Your task to perform on an android device: turn off smart reply in the gmail app Image 0: 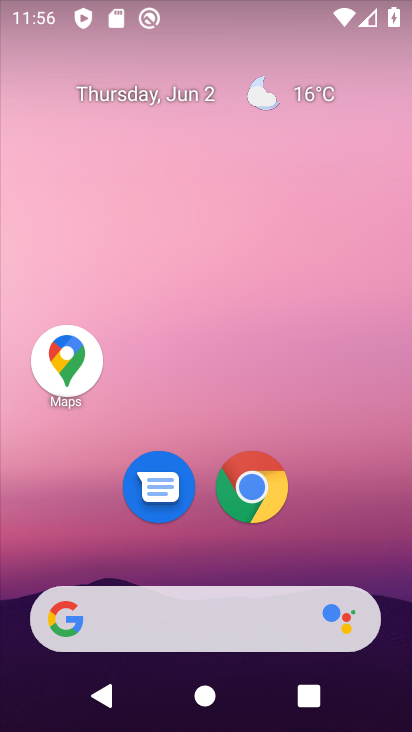
Step 0: click (344, 64)
Your task to perform on an android device: turn off smart reply in the gmail app Image 1: 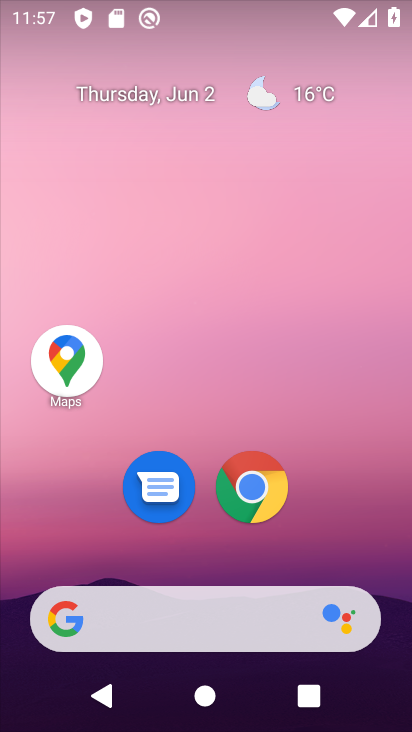
Step 1: press home button
Your task to perform on an android device: turn off smart reply in the gmail app Image 2: 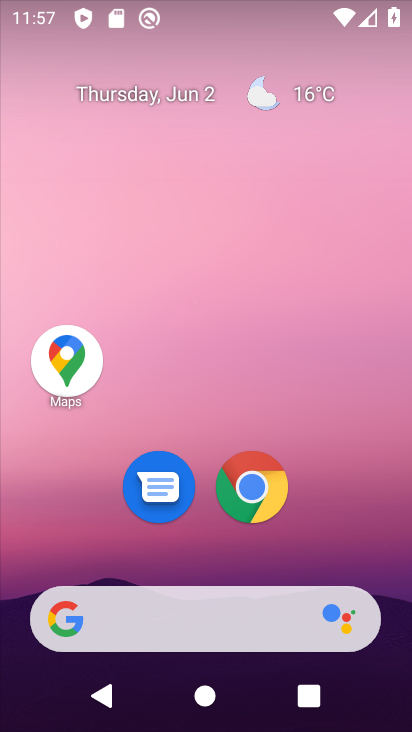
Step 2: drag from (360, 501) to (312, 32)
Your task to perform on an android device: turn off smart reply in the gmail app Image 3: 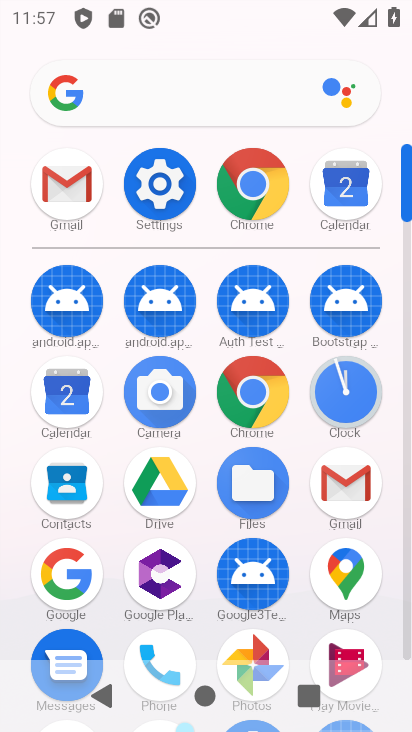
Step 3: click (69, 182)
Your task to perform on an android device: turn off smart reply in the gmail app Image 4: 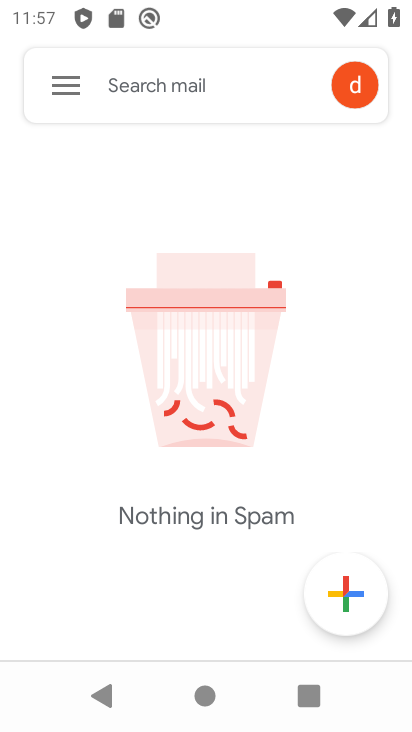
Step 4: click (63, 91)
Your task to perform on an android device: turn off smart reply in the gmail app Image 5: 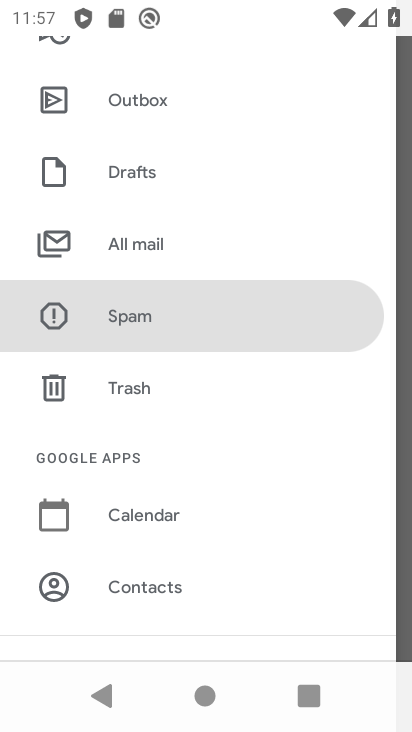
Step 5: drag from (295, 600) to (295, 157)
Your task to perform on an android device: turn off smart reply in the gmail app Image 6: 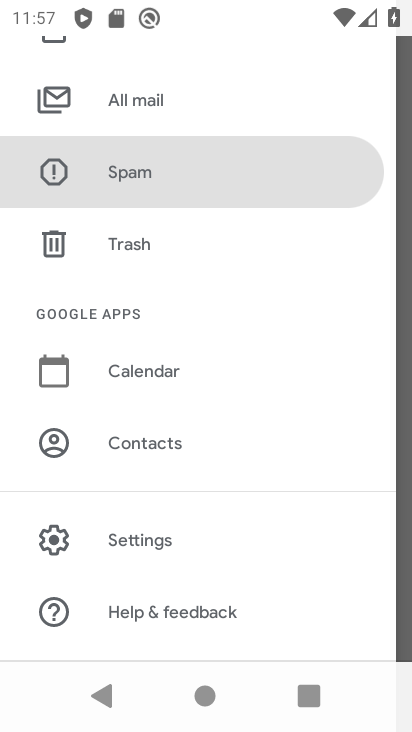
Step 6: click (144, 540)
Your task to perform on an android device: turn off smart reply in the gmail app Image 7: 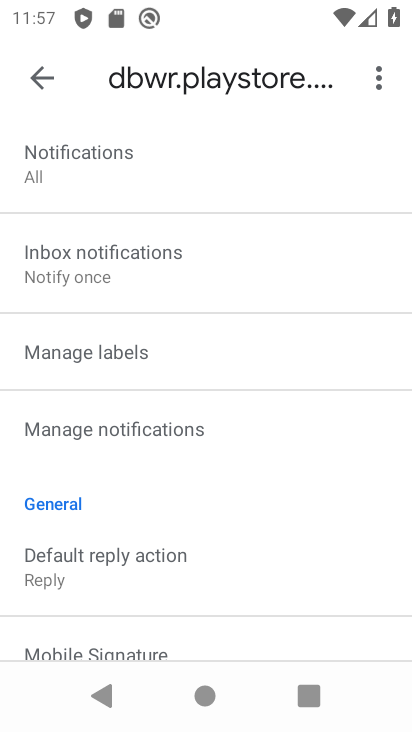
Step 7: drag from (367, 590) to (264, 22)
Your task to perform on an android device: turn off smart reply in the gmail app Image 8: 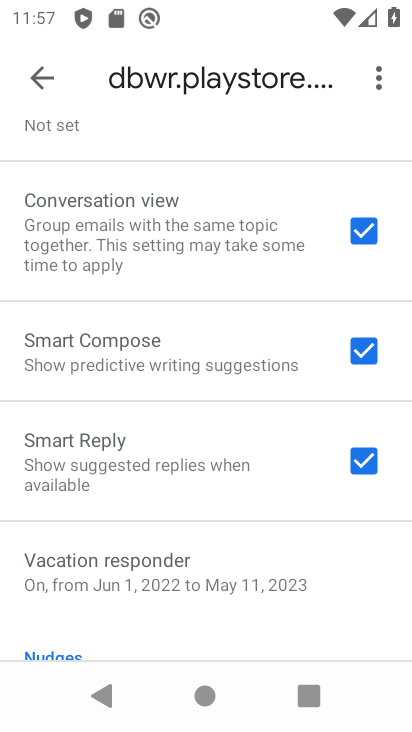
Step 8: click (368, 454)
Your task to perform on an android device: turn off smart reply in the gmail app Image 9: 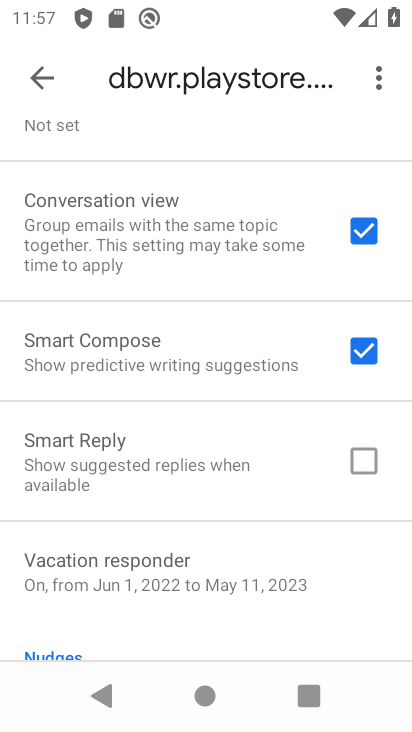
Step 9: task complete